Your task to perform on an android device: Open calendar and show me the fourth week of next month Image 0: 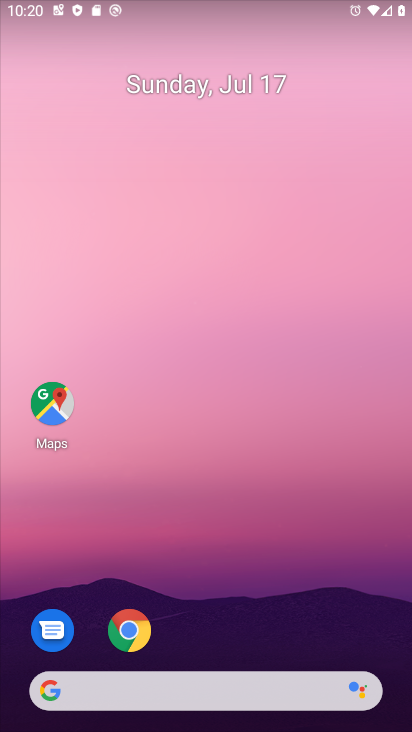
Step 0: drag from (324, 624) to (374, 74)
Your task to perform on an android device: Open calendar and show me the fourth week of next month Image 1: 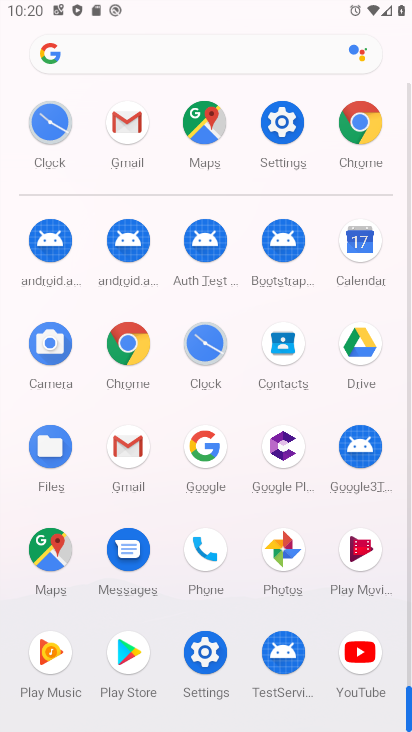
Step 1: click (357, 249)
Your task to perform on an android device: Open calendar and show me the fourth week of next month Image 2: 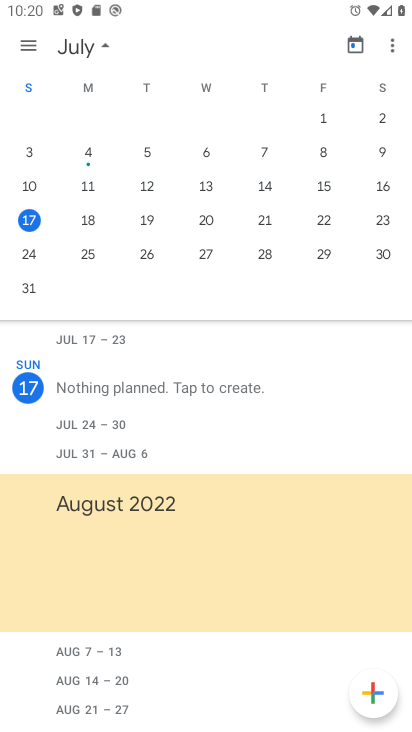
Step 2: click (105, 46)
Your task to perform on an android device: Open calendar and show me the fourth week of next month Image 3: 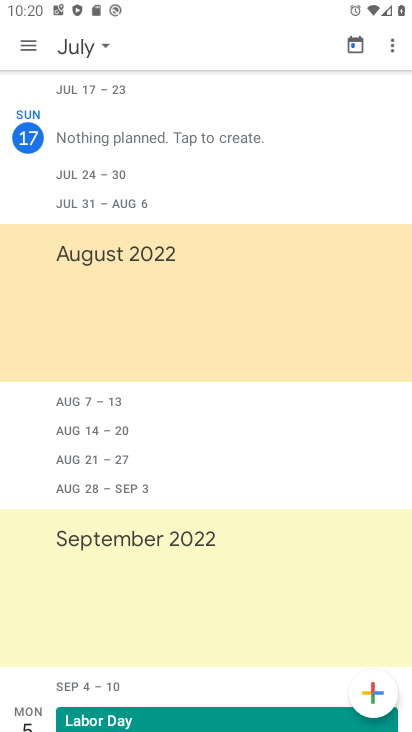
Step 3: click (105, 46)
Your task to perform on an android device: Open calendar and show me the fourth week of next month Image 4: 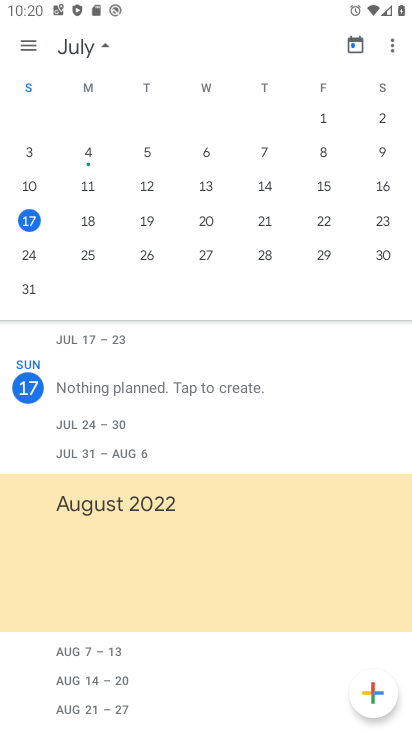
Step 4: drag from (385, 138) to (13, 117)
Your task to perform on an android device: Open calendar and show me the fourth week of next month Image 5: 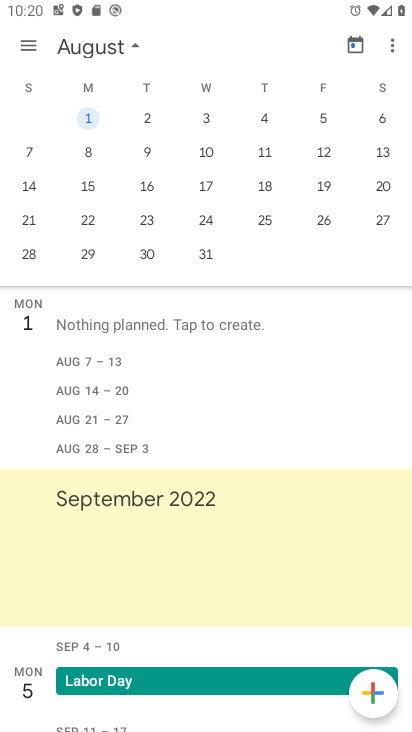
Step 5: click (88, 220)
Your task to perform on an android device: Open calendar and show me the fourth week of next month Image 6: 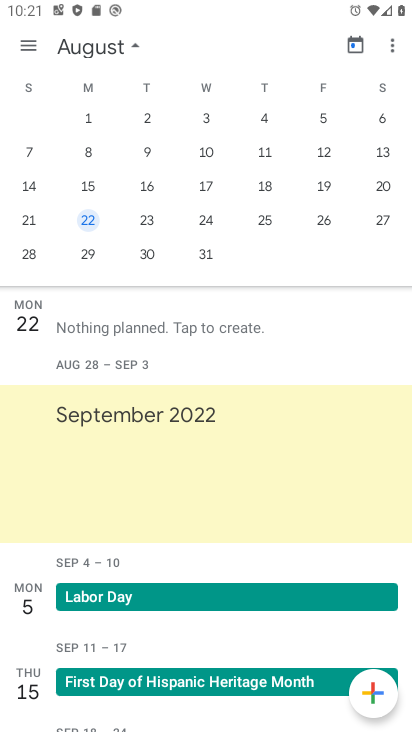
Step 6: task complete